Your task to perform on an android device: delete a single message in the gmail app Image 0: 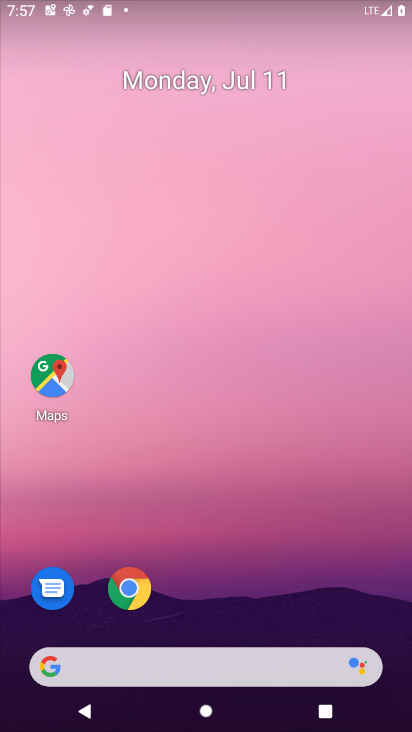
Step 0: drag from (355, 614) to (231, 166)
Your task to perform on an android device: delete a single message in the gmail app Image 1: 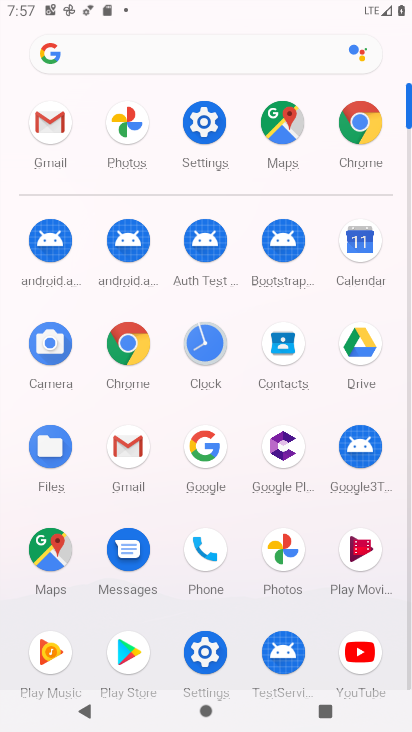
Step 1: click (136, 449)
Your task to perform on an android device: delete a single message in the gmail app Image 2: 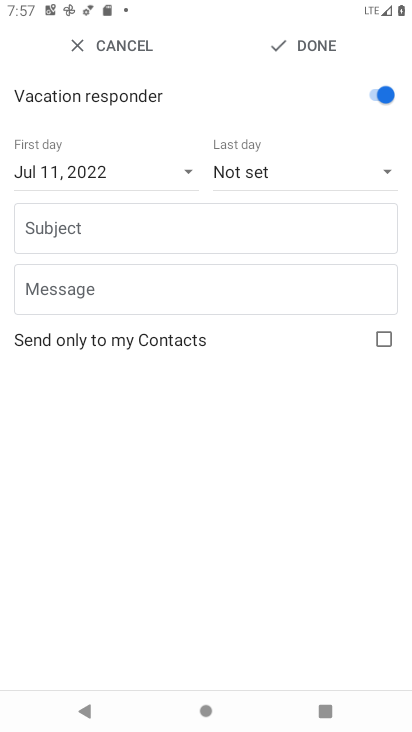
Step 2: press back button
Your task to perform on an android device: delete a single message in the gmail app Image 3: 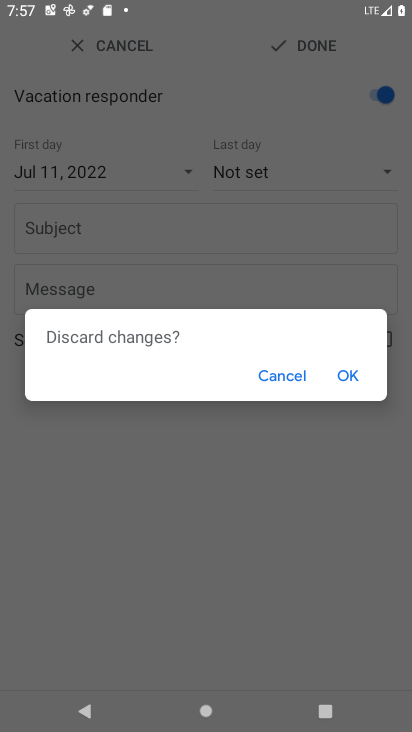
Step 3: click (351, 366)
Your task to perform on an android device: delete a single message in the gmail app Image 4: 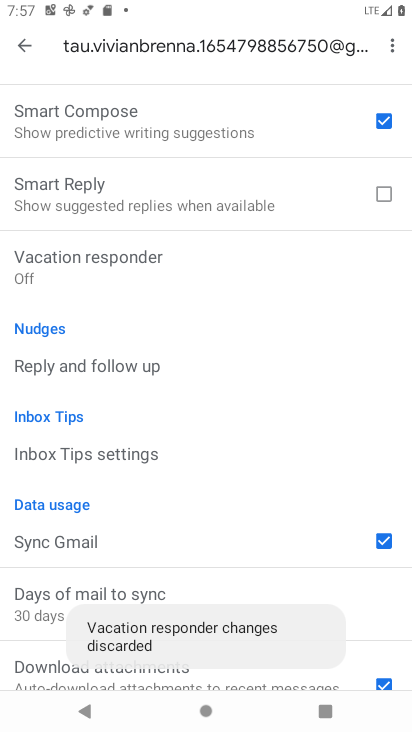
Step 4: press back button
Your task to perform on an android device: delete a single message in the gmail app Image 5: 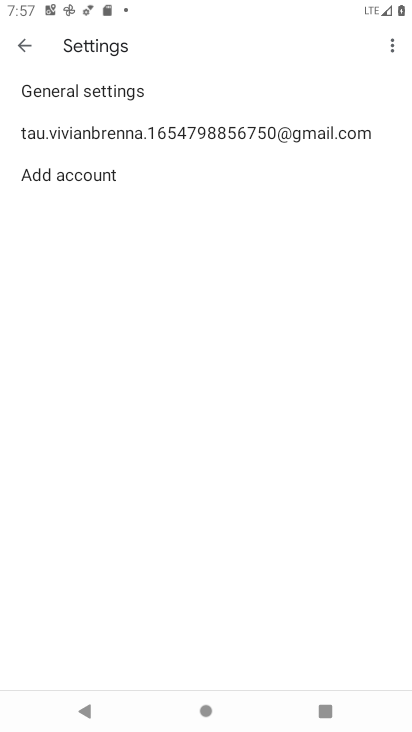
Step 5: press back button
Your task to perform on an android device: delete a single message in the gmail app Image 6: 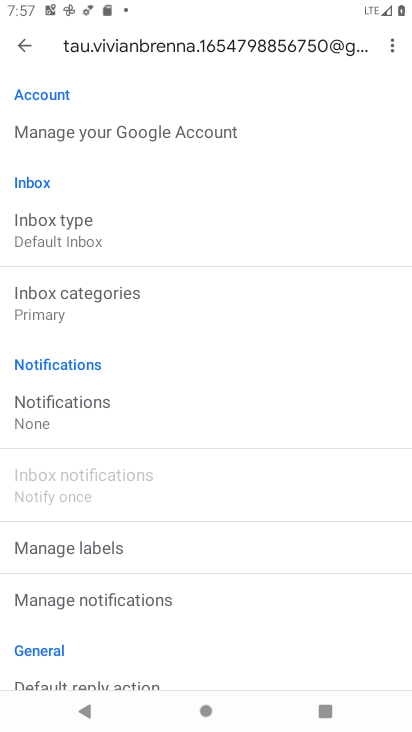
Step 6: press back button
Your task to perform on an android device: delete a single message in the gmail app Image 7: 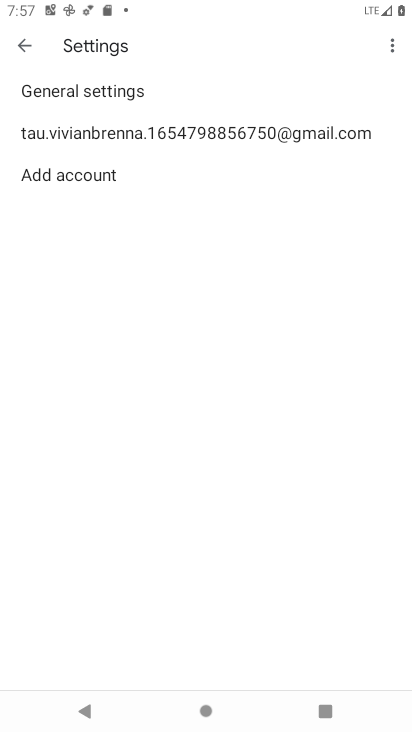
Step 7: press back button
Your task to perform on an android device: delete a single message in the gmail app Image 8: 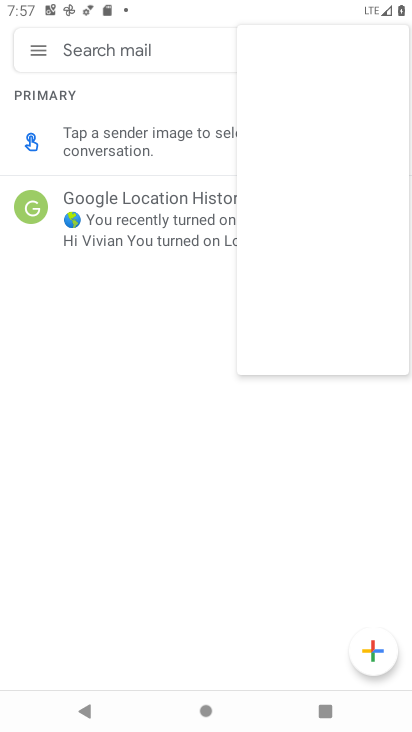
Step 8: click (200, 317)
Your task to perform on an android device: delete a single message in the gmail app Image 9: 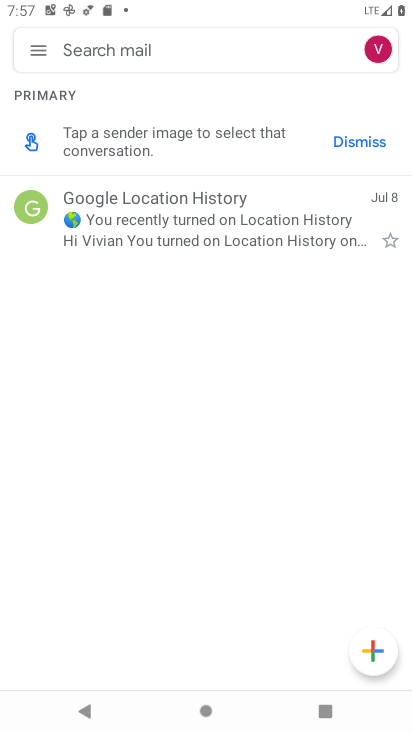
Step 9: click (192, 219)
Your task to perform on an android device: delete a single message in the gmail app Image 10: 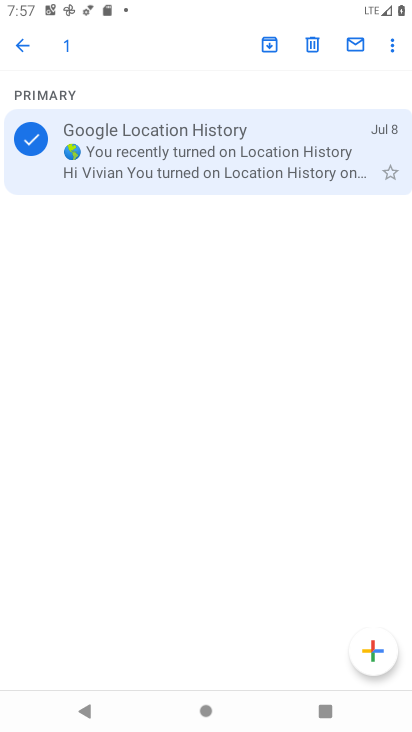
Step 10: click (310, 44)
Your task to perform on an android device: delete a single message in the gmail app Image 11: 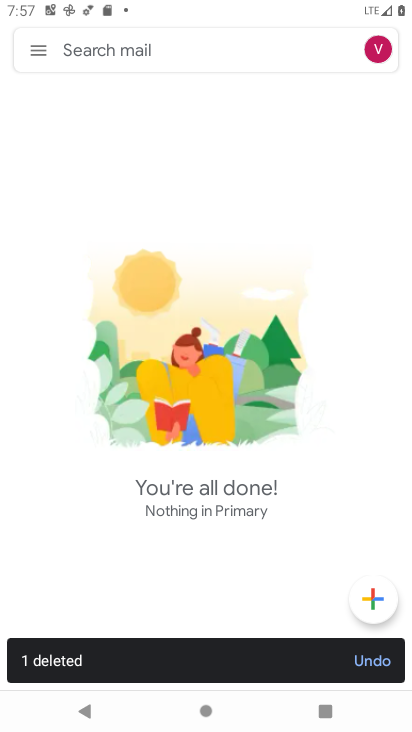
Step 11: task complete